Your task to perform on an android device: What's the weather? Image 0: 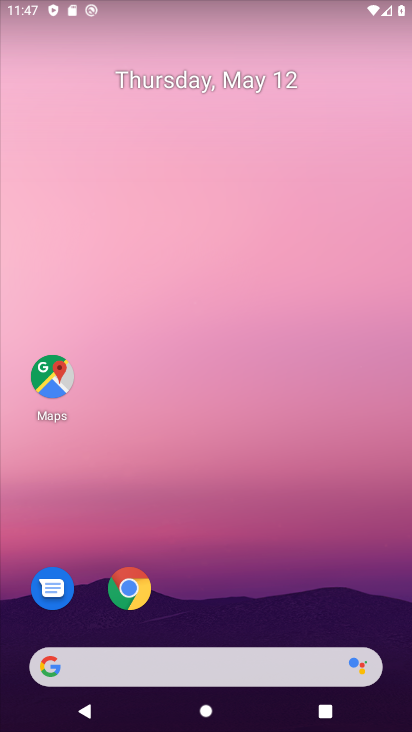
Step 0: drag from (253, 583) to (321, 105)
Your task to perform on an android device: What's the weather? Image 1: 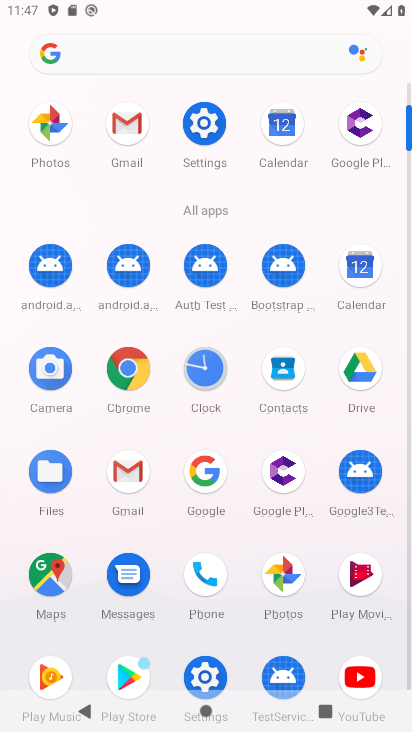
Step 1: click (201, 156)
Your task to perform on an android device: What's the weather? Image 2: 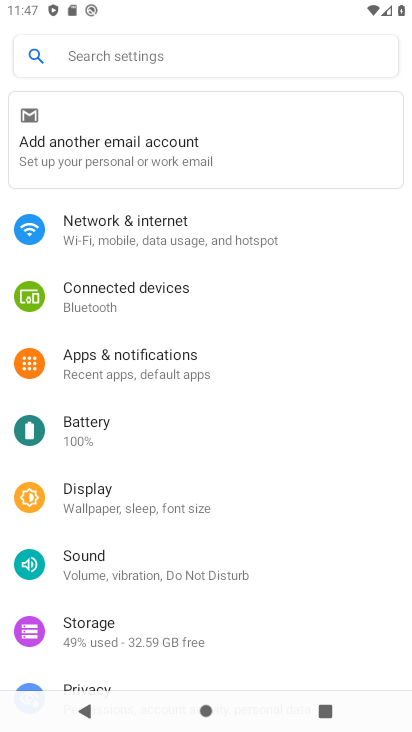
Step 2: press home button
Your task to perform on an android device: What's the weather? Image 3: 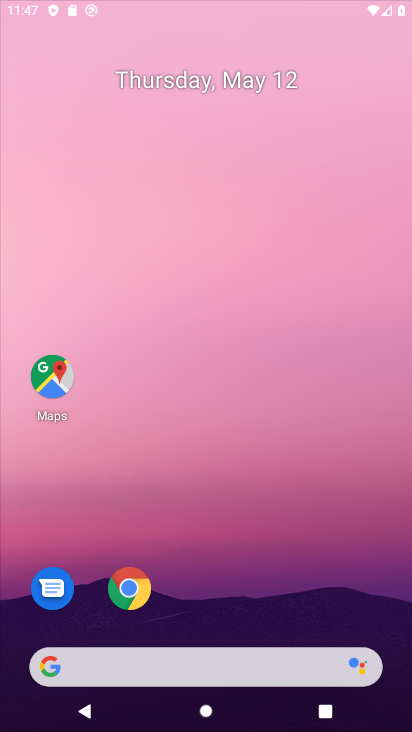
Step 3: drag from (223, 553) to (222, 199)
Your task to perform on an android device: What's the weather? Image 4: 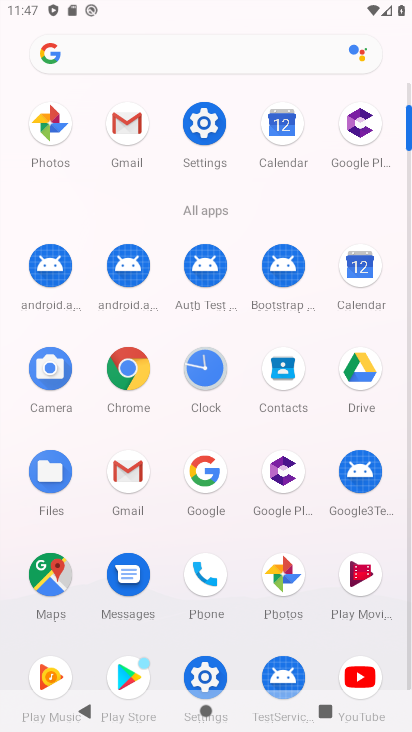
Step 4: drag from (191, 442) to (196, 194)
Your task to perform on an android device: What's the weather? Image 5: 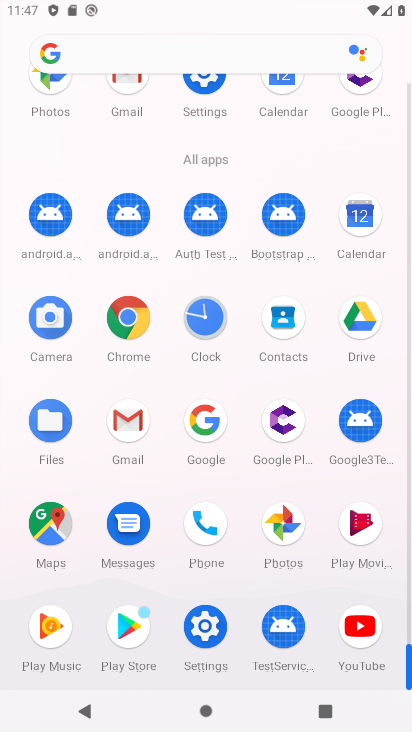
Step 5: click (203, 441)
Your task to perform on an android device: What's the weather? Image 6: 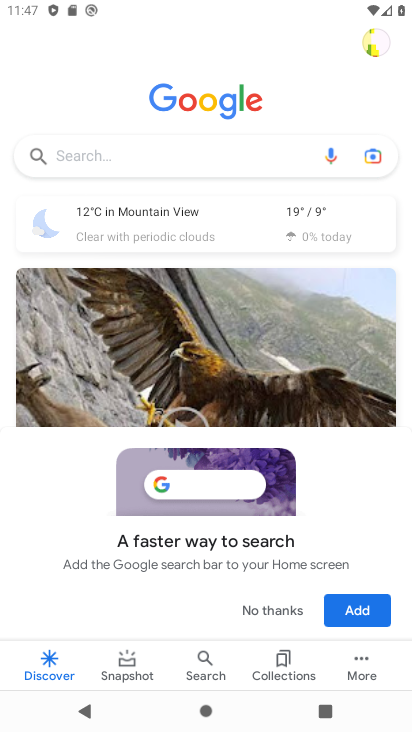
Step 6: click (158, 166)
Your task to perform on an android device: What's the weather? Image 7: 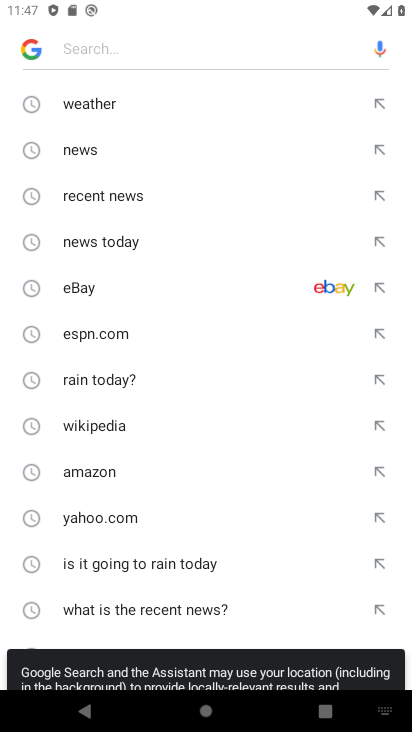
Step 7: click (134, 113)
Your task to perform on an android device: What's the weather? Image 8: 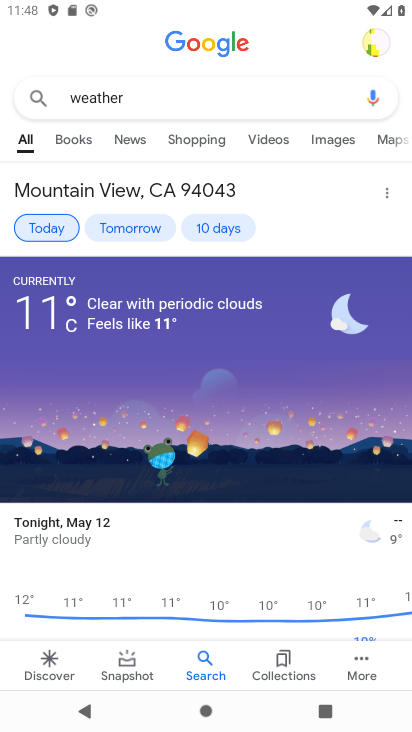
Step 8: task complete